Your task to perform on an android device: turn vacation reply on in the gmail app Image 0: 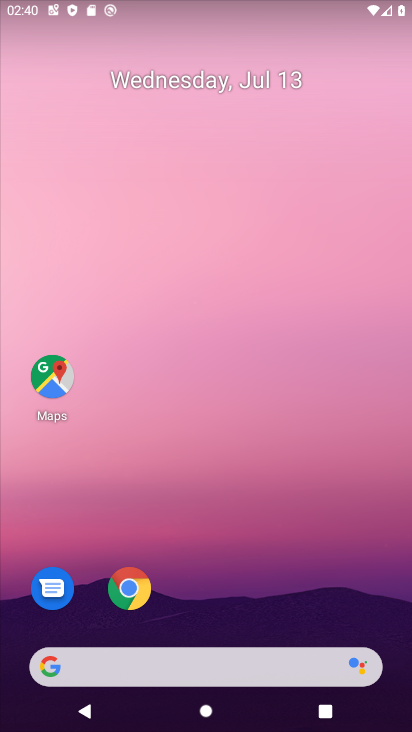
Step 0: drag from (396, 684) to (319, 304)
Your task to perform on an android device: turn vacation reply on in the gmail app Image 1: 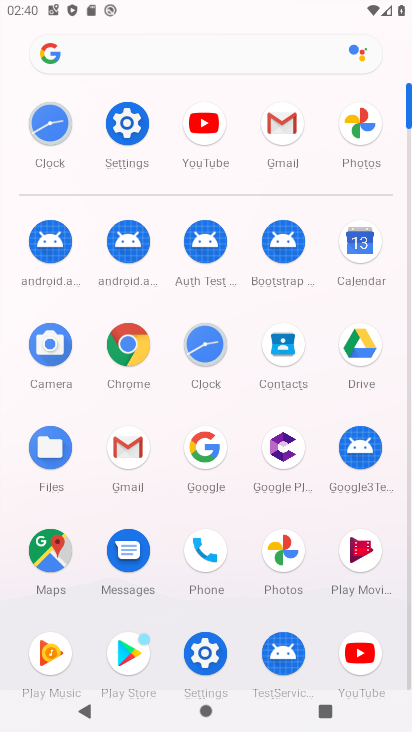
Step 1: click (127, 463)
Your task to perform on an android device: turn vacation reply on in the gmail app Image 2: 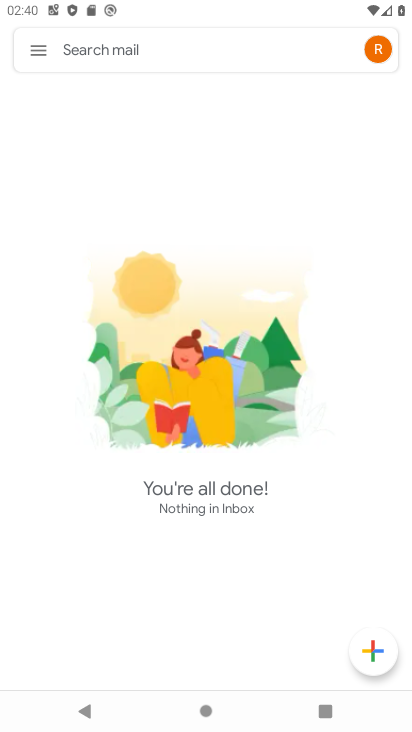
Step 2: click (39, 48)
Your task to perform on an android device: turn vacation reply on in the gmail app Image 3: 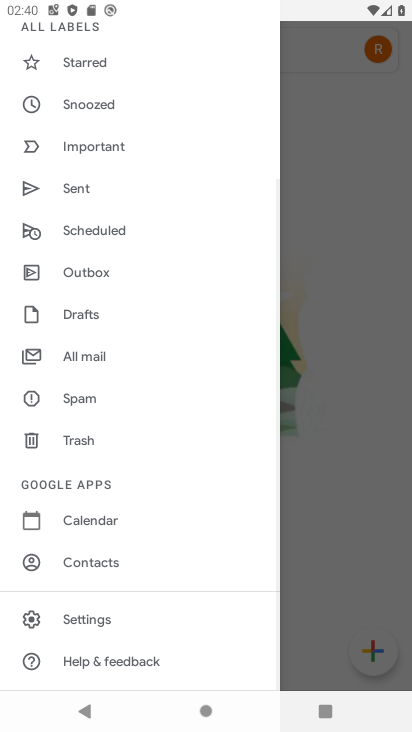
Step 3: drag from (198, 541) to (176, 307)
Your task to perform on an android device: turn vacation reply on in the gmail app Image 4: 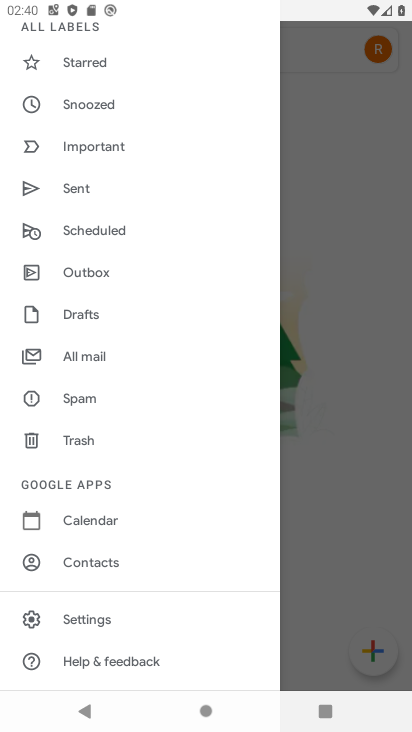
Step 4: click (86, 608)
Your task to perform on an android device: turn vacation reply on in the gmail app Image 5: 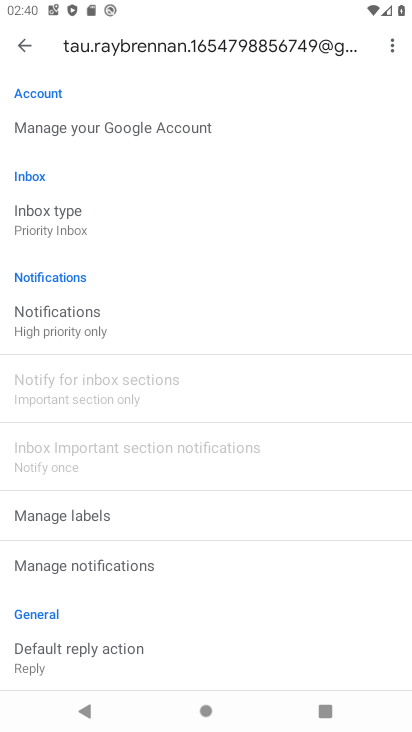
Step 5: drag from (204, 609) to (233, 191)
Your task to perform on an android device: turn vacation reply on in the gmail app Image 6: 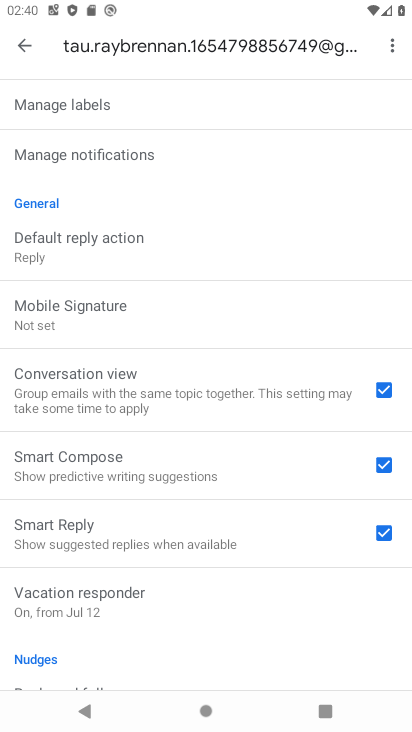
Step 6: drag from (199, 602) to (193, 282)
Your task to perform on an android device: turn vacation reply on in the gmail app Image 7: 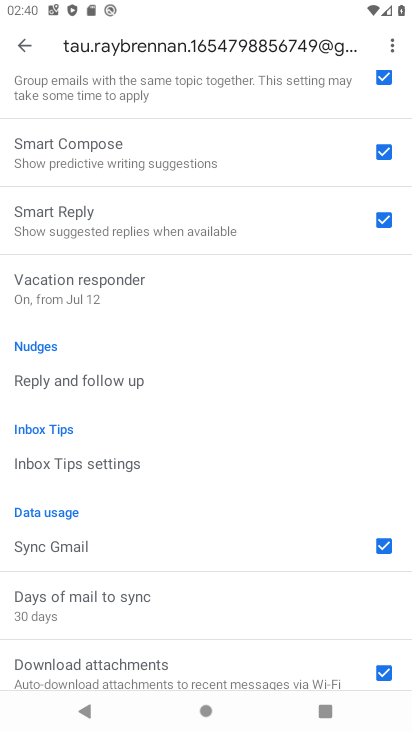
Step 7: click (93, 288)
Your task to perform on an android device: turn vacation reply on in the gmail app Image 8: 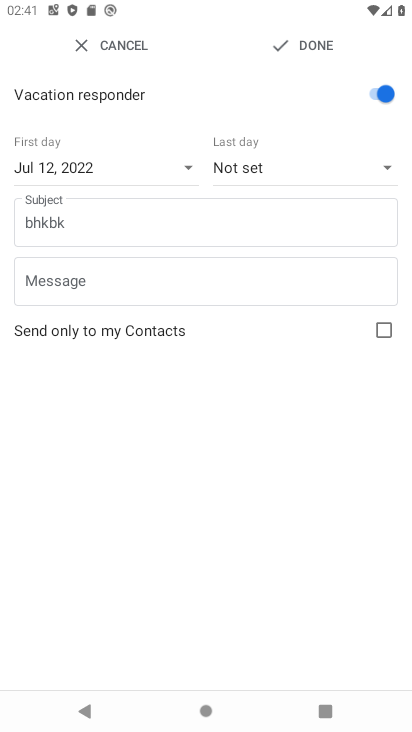
Step 8: press home button
Your task to perform on an android device: turn vacation reply on in the gmail app Image 9: 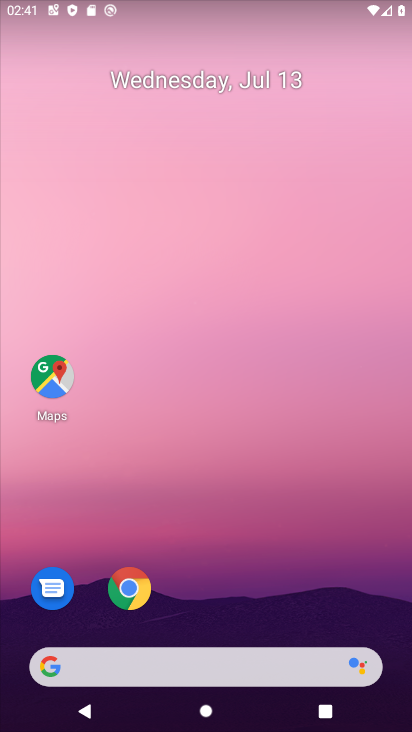
Step 9: drag from (386, 618) to (332, 249)
Your task to perform on an android device: turn vacation reply on in the gmail app Image 10: 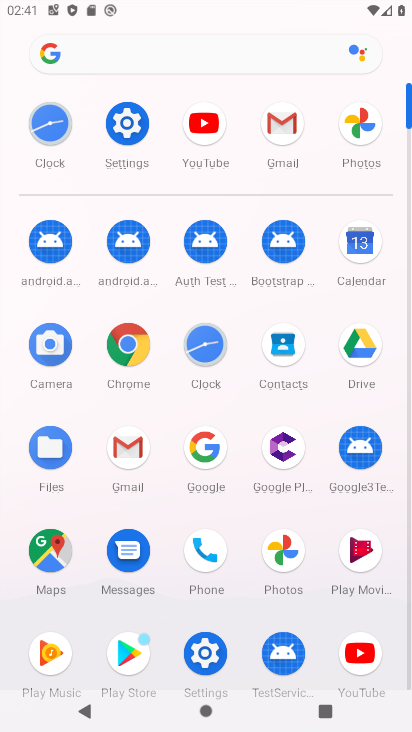
Step 10: click (122, 446)
Your task to perform on an android device: turn vacation reply on in the gmail app Image 11: 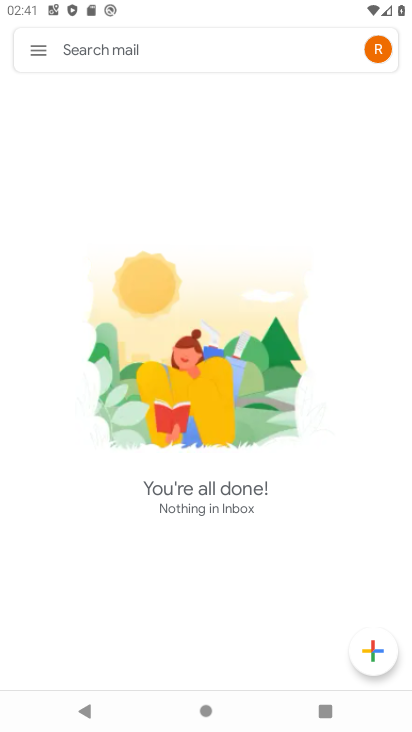
Step 11: click (29, 48)
Your task to perform on an android device: turn vacation reply on in the gmail app Image 12: 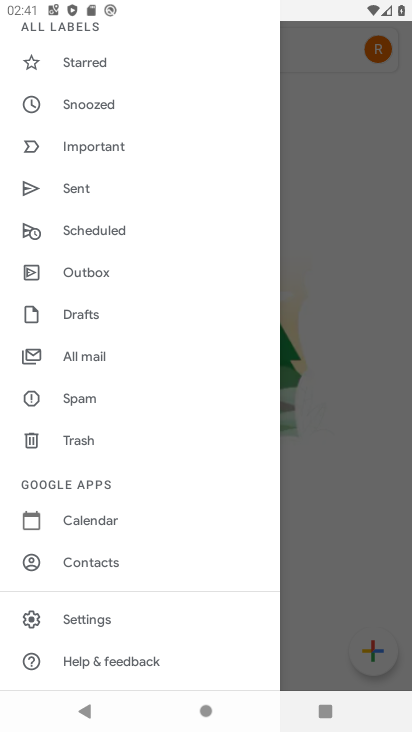
Step 12: click (87, 615)
Your task to perform on an android device: turn vacation reply on in the gmail app Image 13: 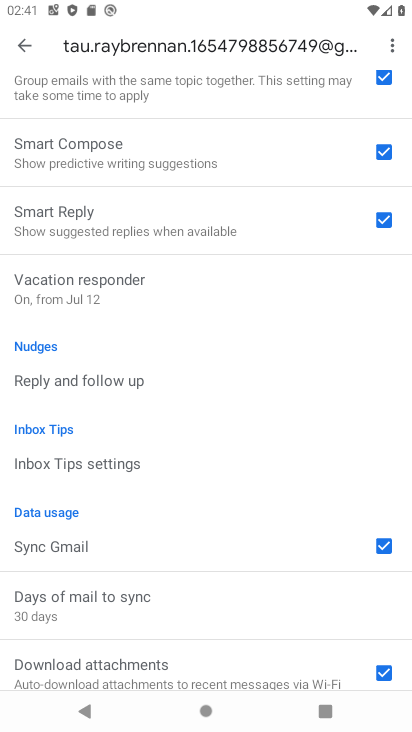
Step 13: drag from (218, 650) to (176, 260)
Your task to perform on an android device: turn vacation reply on in the gmail app Image 14: 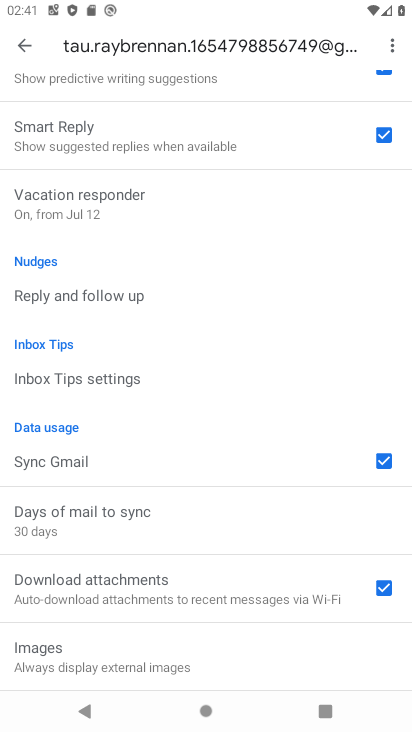
Step 14: click (71, 202)
Your task to perform on an android device: turn vacation reply on in the gmail app Image 15: 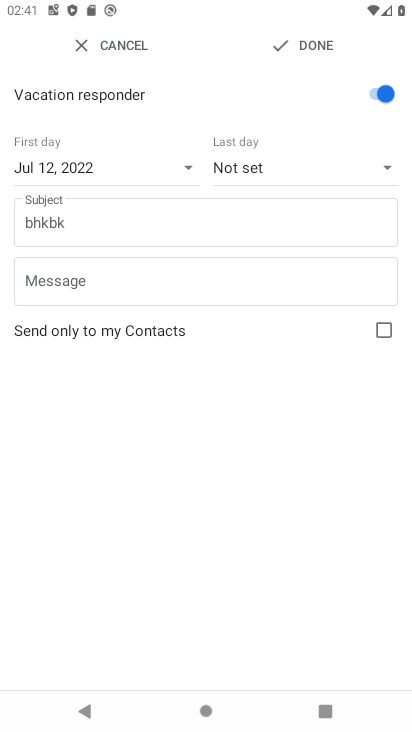
Step 15: task complete